Your task to perform on an android device: Add "usb-c" to the cart on newegg.com Image 0: 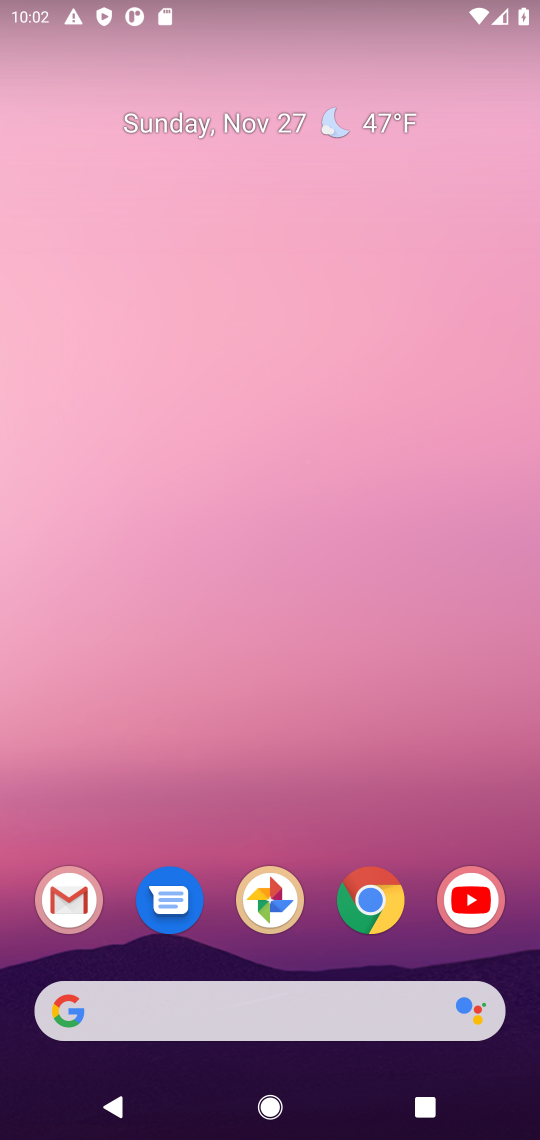
Step 0: click (359, 913)
Your task to perform on an android device: Add "usb-c" to the cart on newegg.com Image 1: 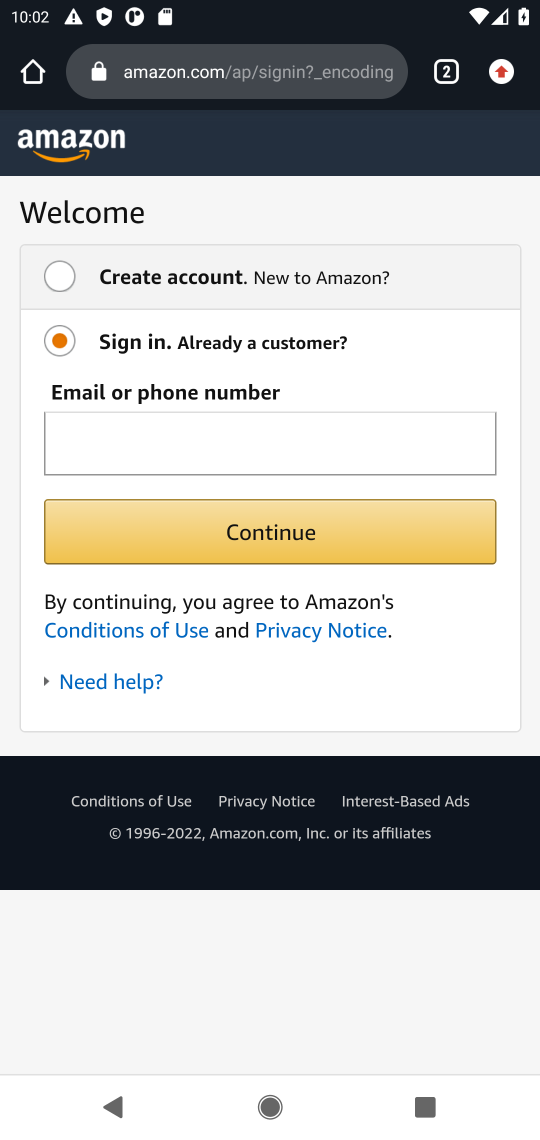
Step 1: click (208, 70)
Your task to perform on an android device: Add "usb-c" to the cart on newegg.com Image 2: 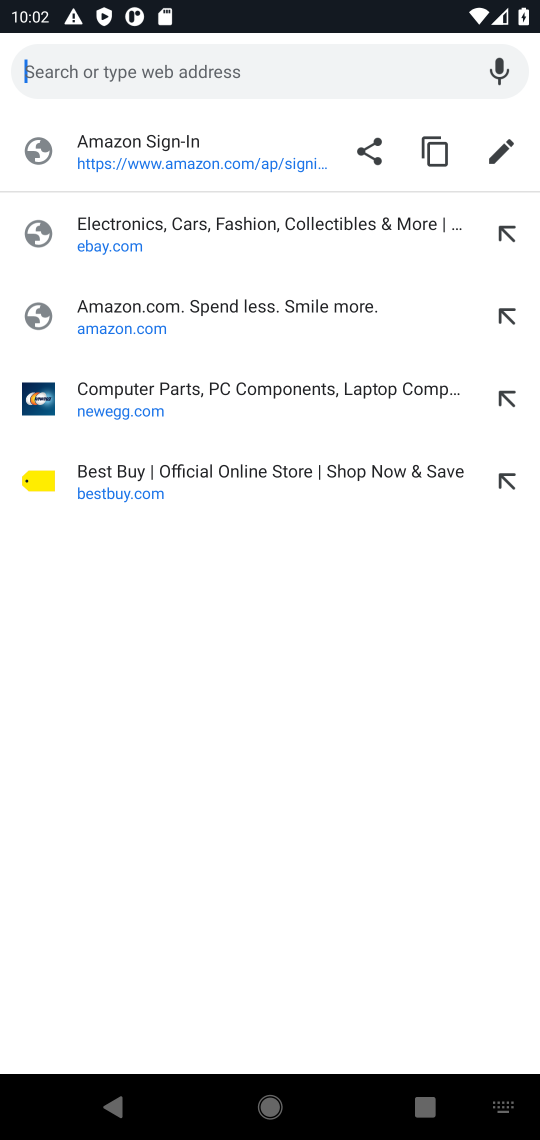
Step 2: click (106, 400)
Your task to perform on an android device: Add "usb-c" to the cart on newegg.com Image 3: 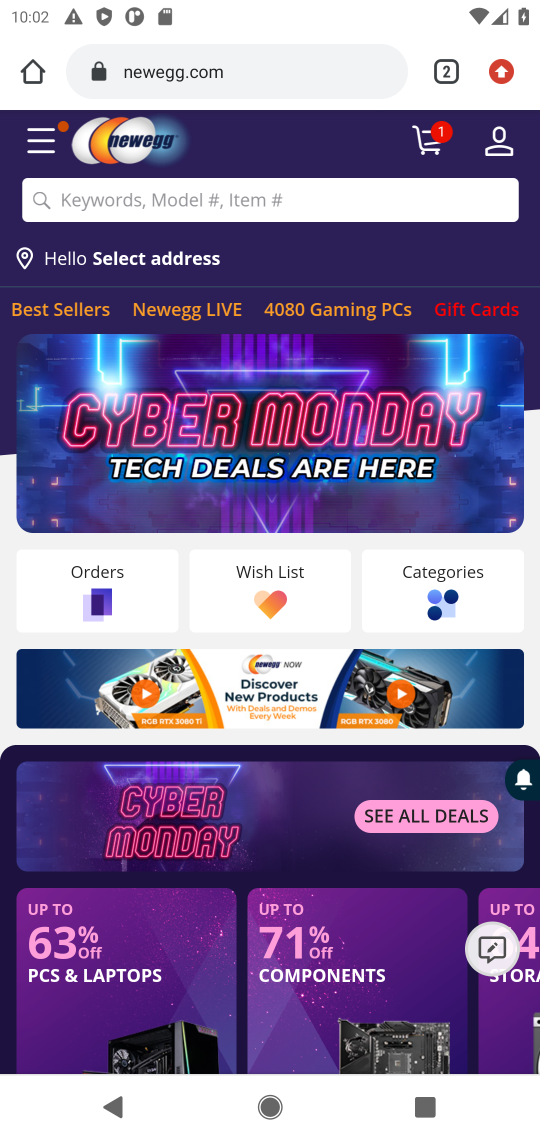
Step 3: click (153, 195)
Your task to perform on an android device: Add "usb-c" to the cart on newegg.com Image 4: 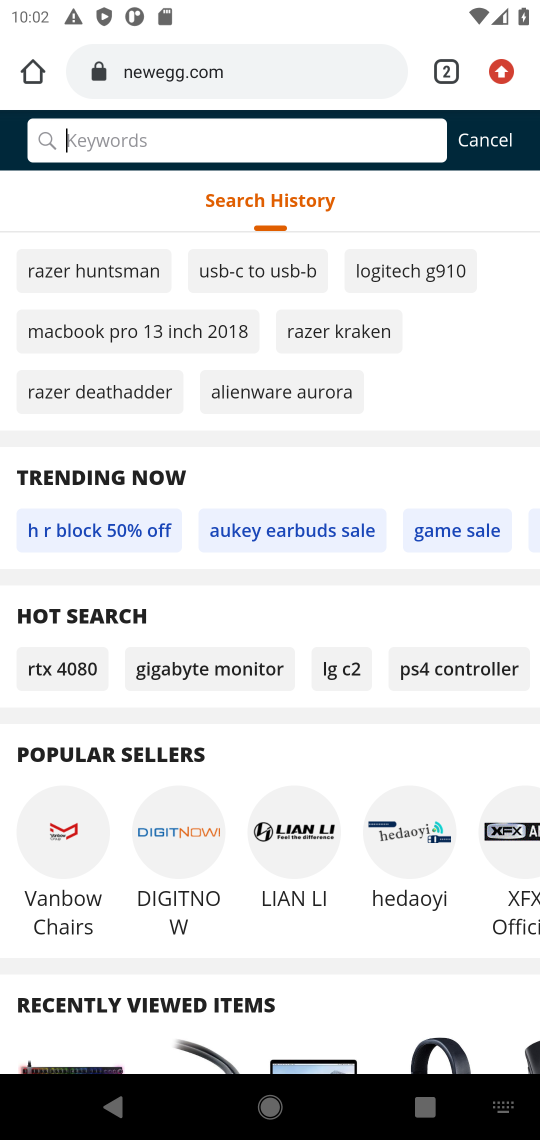
Step 4: type "usb-c"
Your task to perform on an android device: Add "usb-c" to the cart on newegg.com Image 5: 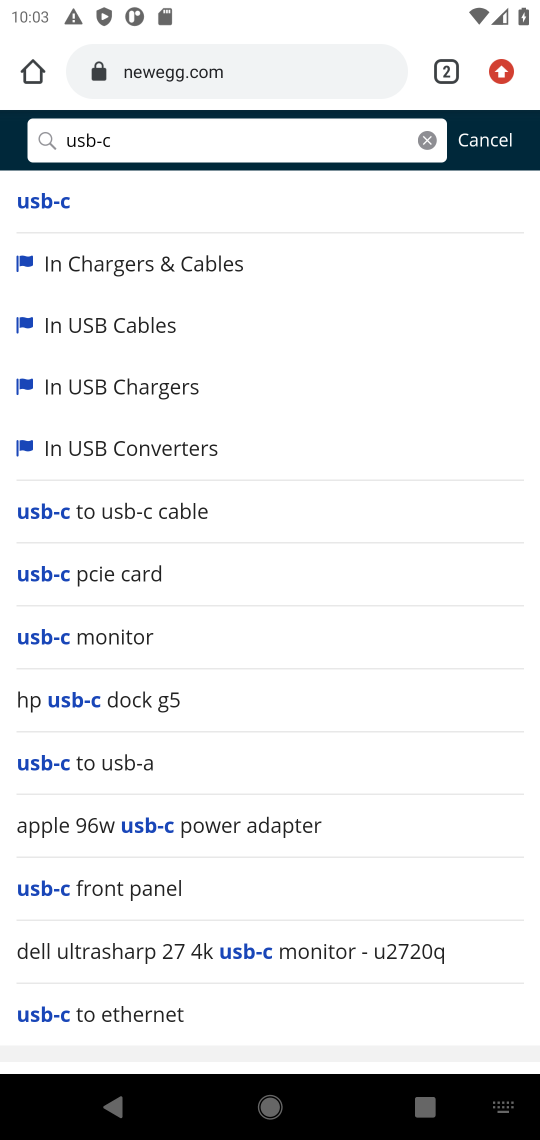
Step 5: click (47, 205)
Your task to perform on an android device: Add "usb-c" to the cart on newegg.com Image 6: 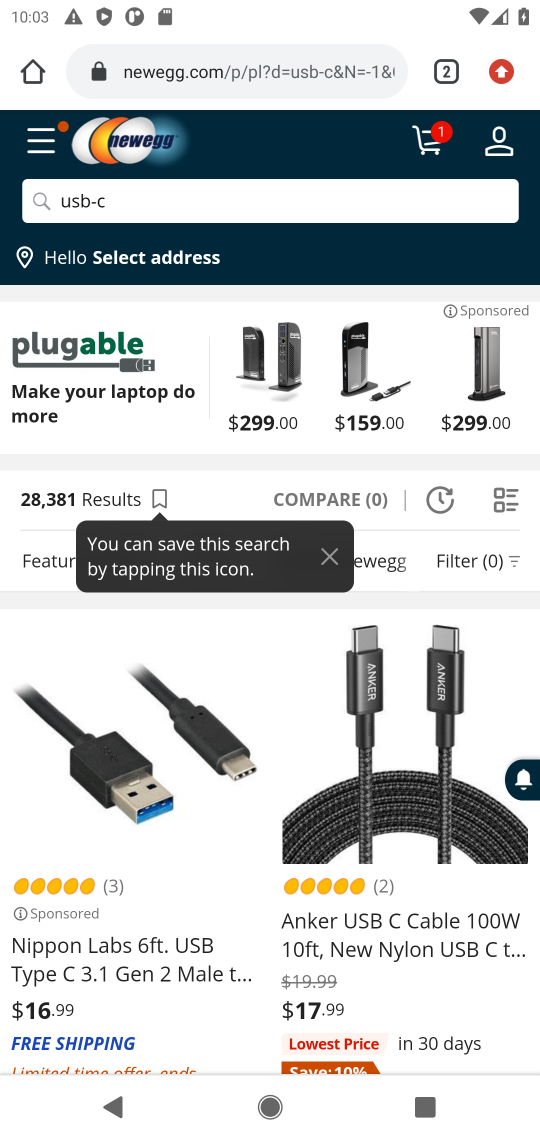
Step 6: click (144, 829)
Your task to perform on an android device: Add "usb-c" to the cart on newegg.com Image 7: 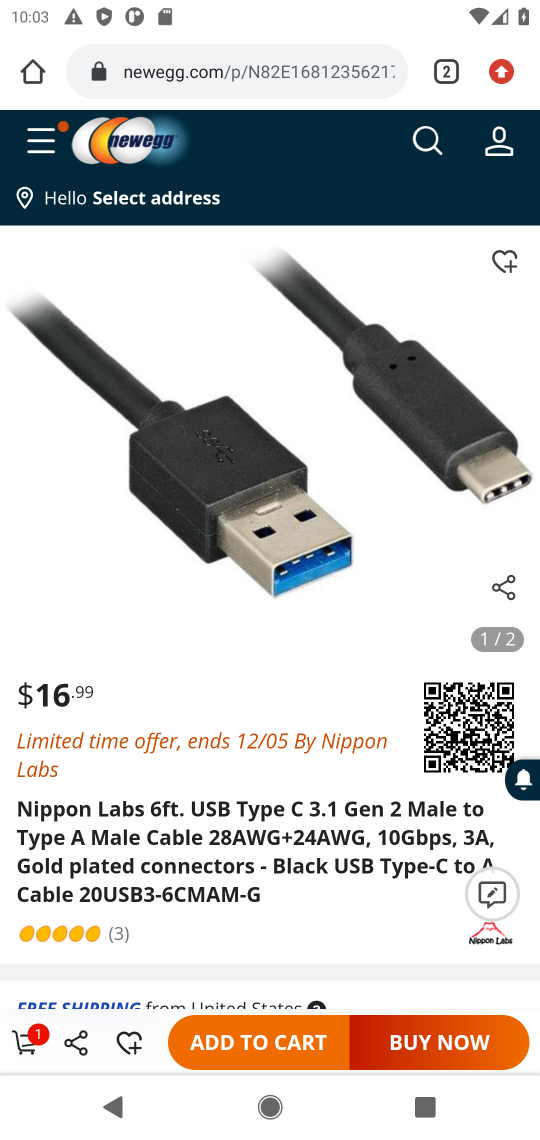
Step 7: click (270, 1048)
Your task to perform on an android device: Add "usb-c" to the cart on newegg.com Image 8: 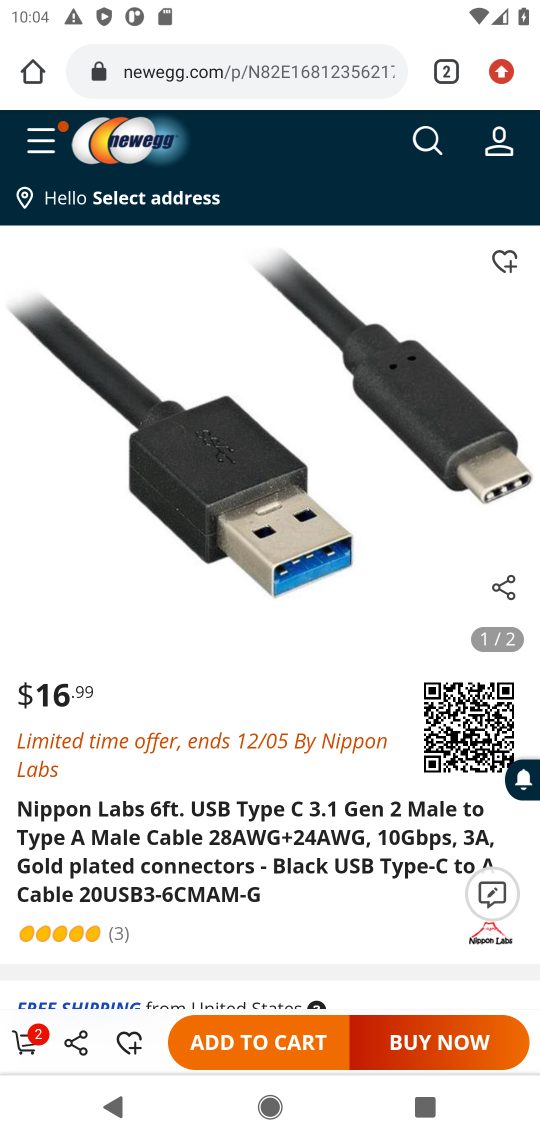
Step 8: task complete